Your task to perform on an android device: Open Chrome and go to settings Image 0: 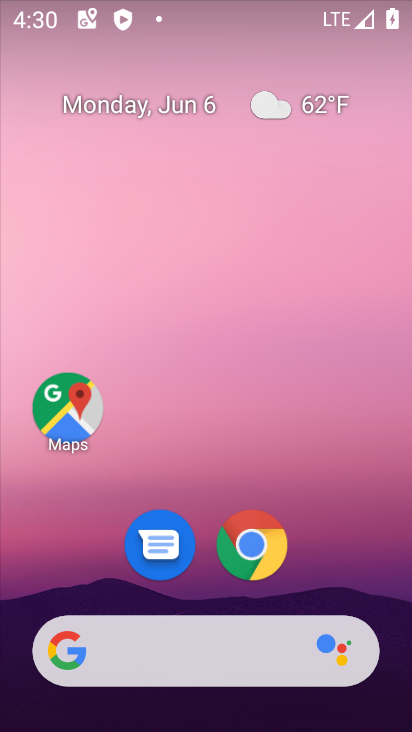
Step 0: click (253, 553)
Your task to perform on an android device: Open Chrome and go to settings Image 1: 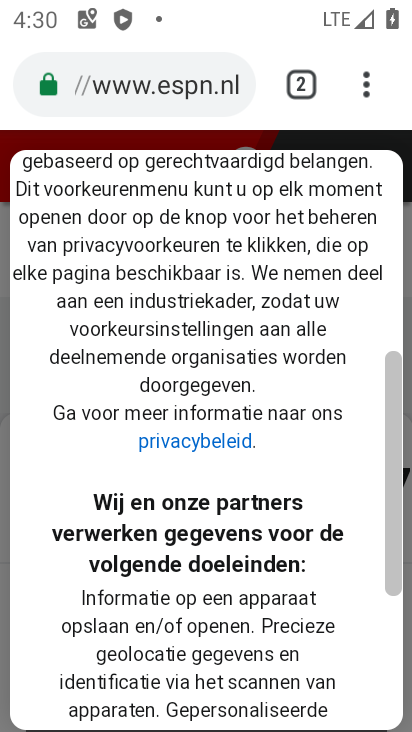
Step 1: click (365, 90)
Your task to perform on an android device: Open Chrome and go to settings Image 2: 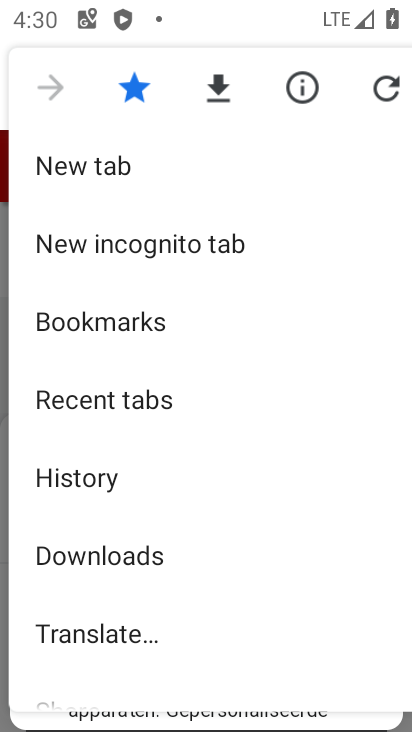
Step 2: drag from (59, 671) to (62, 244)
Your task to perform on an android device: Open Chrome and go to settings Image 3: 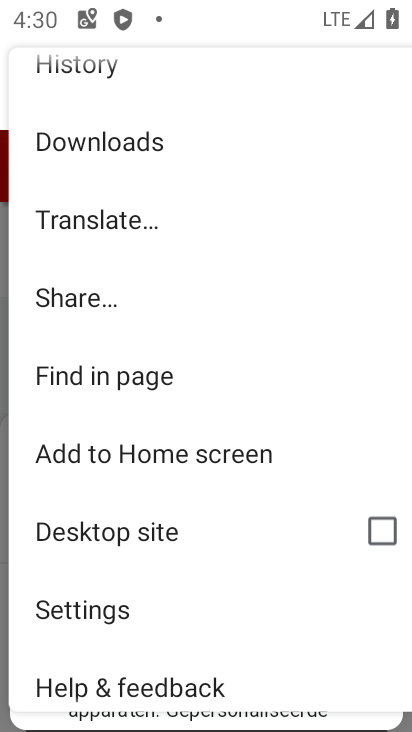
Step 3: click (84, 610)
Your task to perform on an android device: Open Chrome and go to settings Image 4: 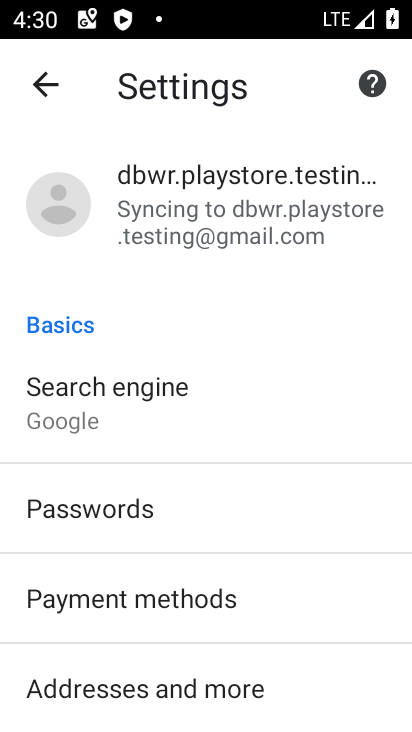
Step 4: task complete